Your task to perform on an android device: What's on my calendar today? Image 0: 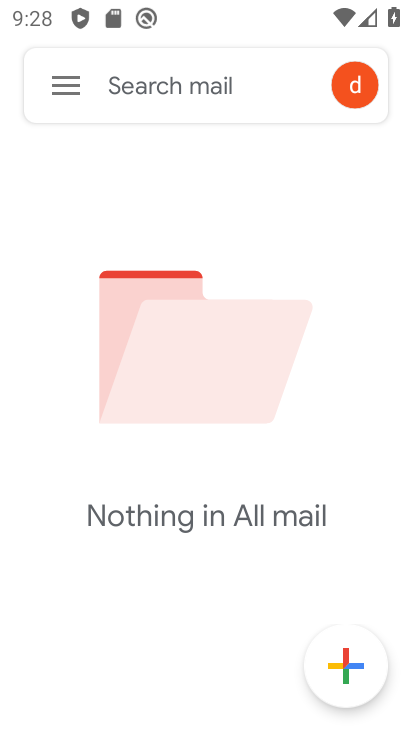
Step 0: press home button
Your task to perform on an android device: What's on my calendar today? Image 1: 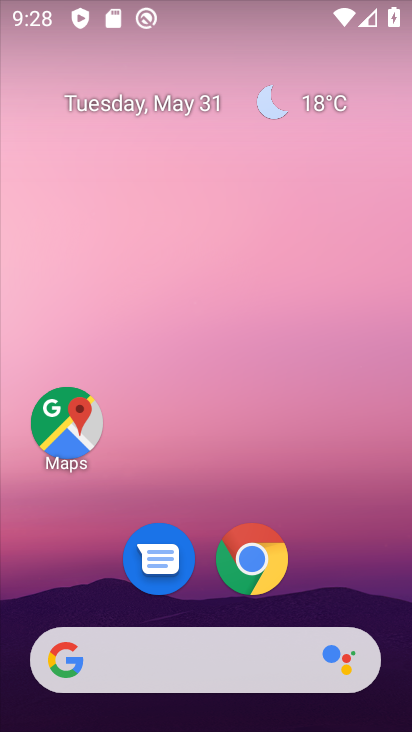
Step 1: drag from (340, 559) to (288, 35)
Your task to perform on an android device: What's on my calendar today? Image 2: 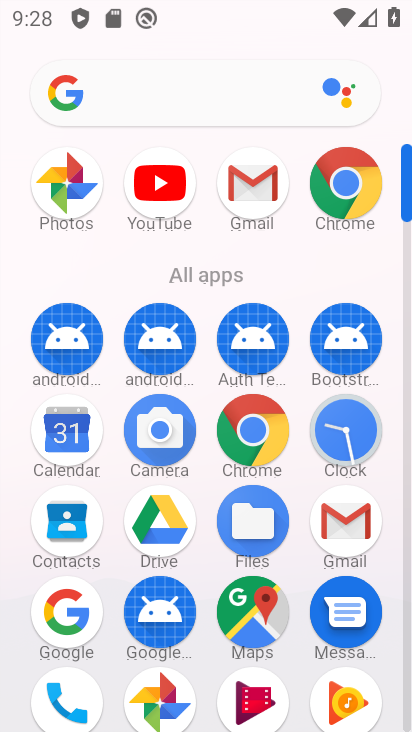
Step 2: click (54, 438)
Your task to perform on an android device: What's on my calendar today? Image 3: 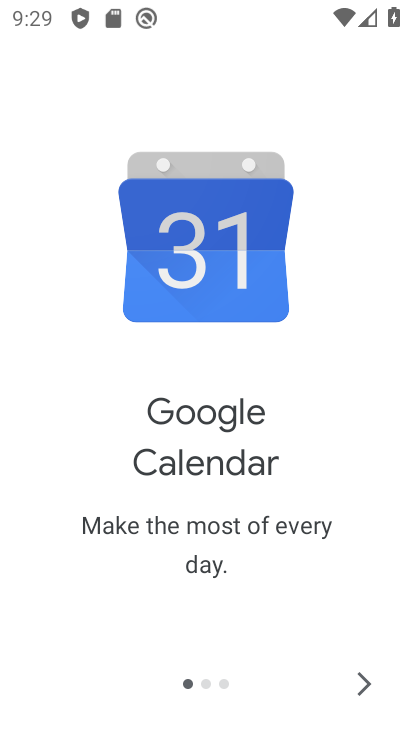
Step 3: click (354, 695)
Your task to perform on an android device: What's on my calendar today? Image 4: 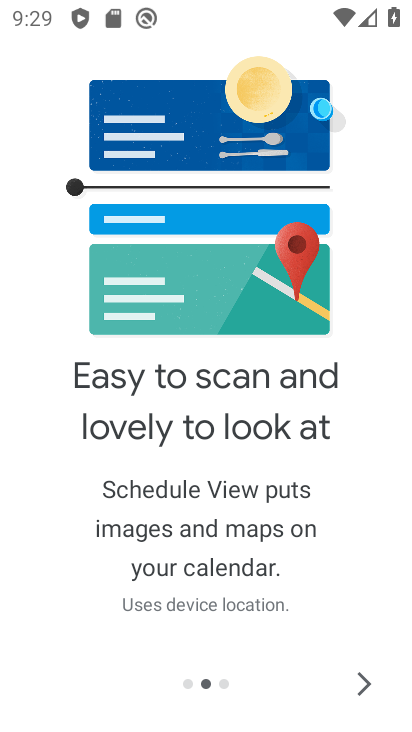
Step 4: click (362, 695)
Your task to perform on an android device: What's on my calendar today? Image 5: 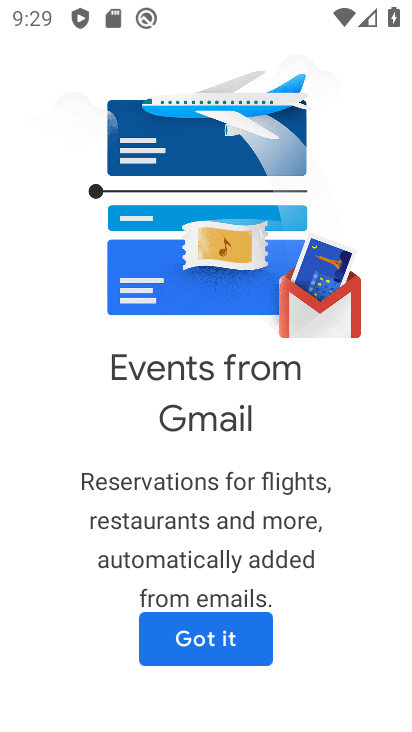
Step 5: click (246, 646)
Your task to perform on an android device: What's on my calendar today? Image 6: 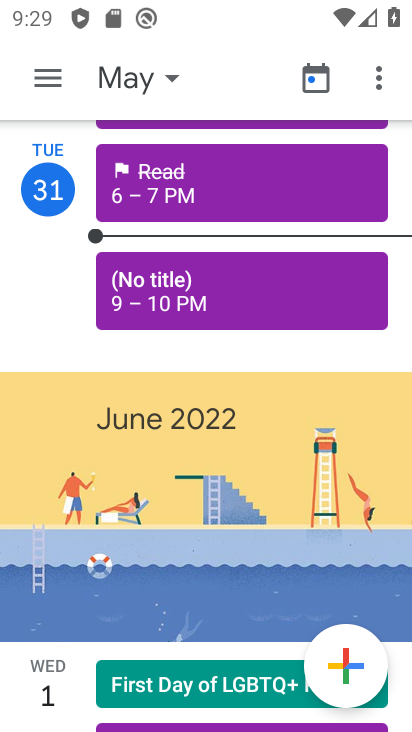
Step 6: click (54, 75)
Your task to perform on an android device: What's on my calendar today? Image 7: 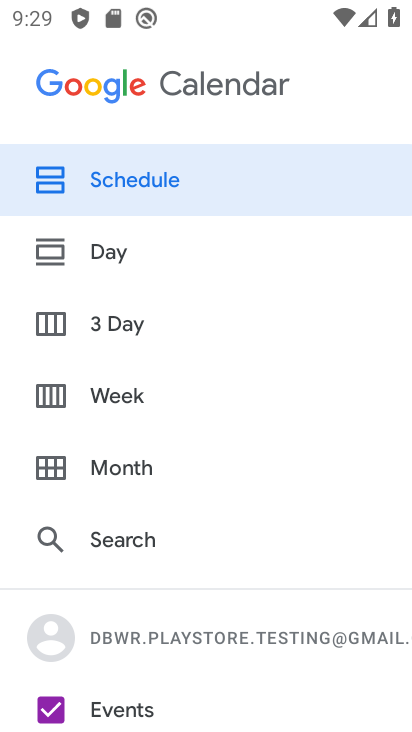
Step 7: drag from (179, 683) to (233, 272)
Your task to perform on an android device: What's on my calendar today? Image 8: 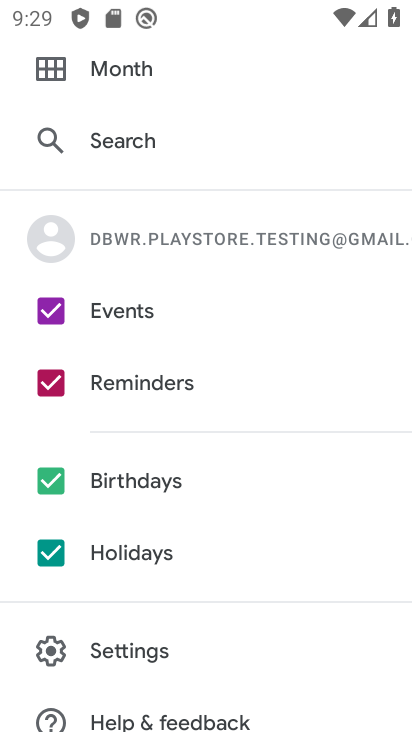
Step 8: drag from (196, 95) to (246, 649)
Your task to perform on an android device: What's on my calendar today? Image 9: 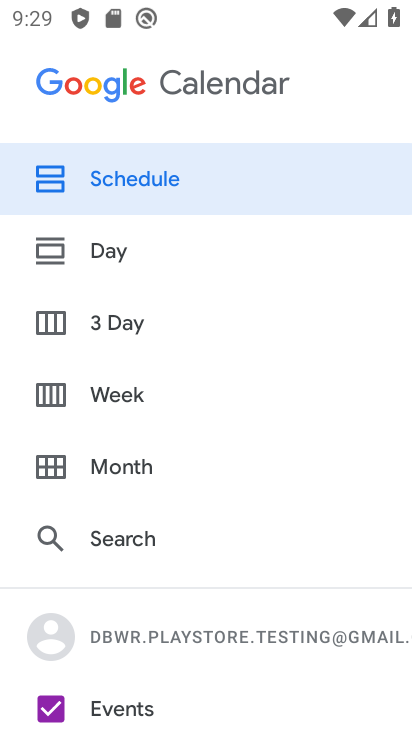
Step 9: click (88, 237)
Your task to perform on an android device: What's on my calendar today? Image 10: 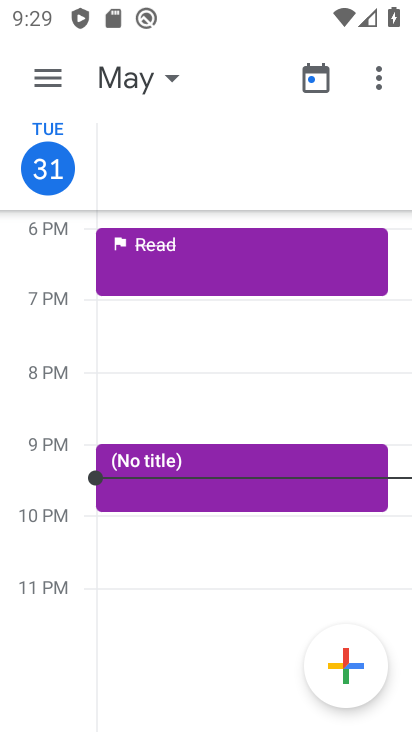
Step 10: task complete